Your task to perform on an android device: change notifications settings Image 0: 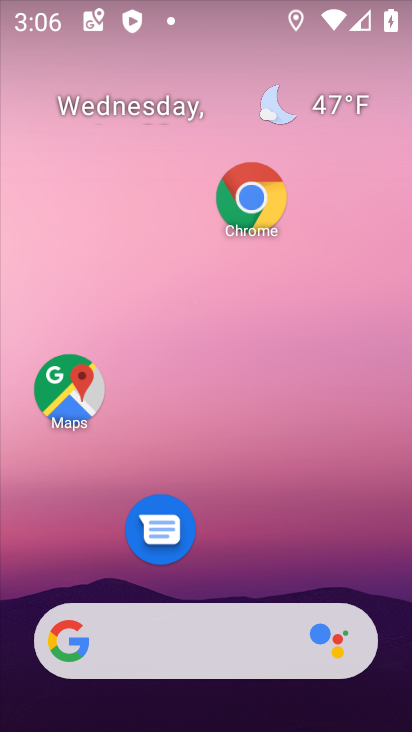
Step 0: drag from (253, 560) to (247, 16)
Your task to perform on an android device: change notifications settings Image 1: 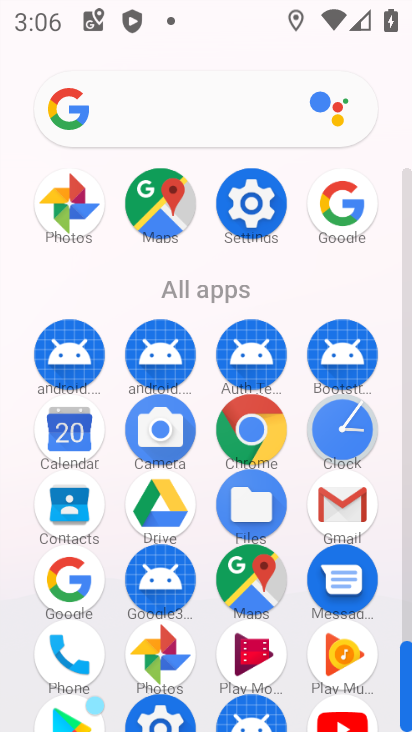
Step 1: click (246, 209)
Your task to perform on an android device: change notifications settings Image 2: 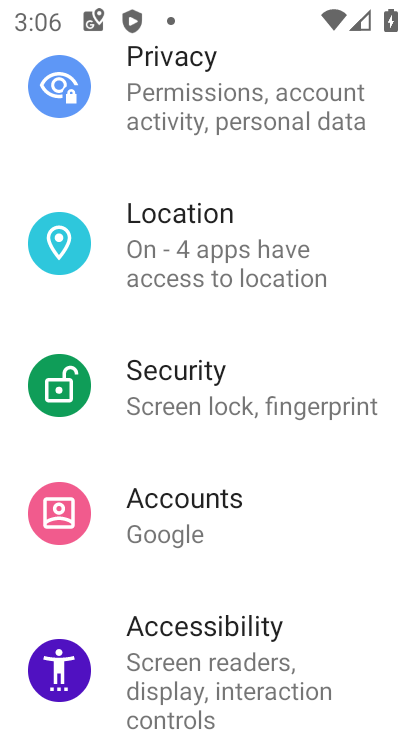
Step 2: drag from (289, 209) to (214, 728)
Your task to perform on an android device: change notifications settings Image 3: 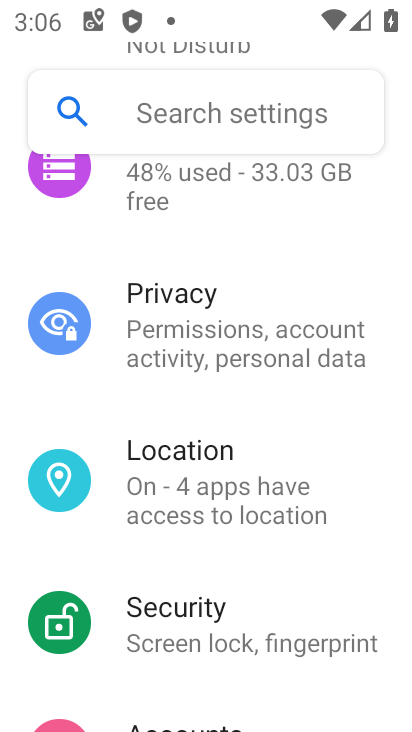
Step 3: drag from (228, 224) to (175, 717)
Your task to perform on an android device: change notifications settings Image 4: 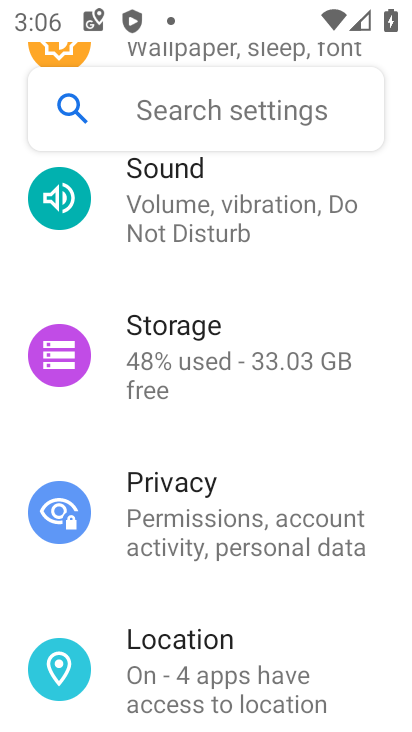
Step 4: drag from (246, 258) to (181, 725)
Your task to perform on an android device: change notifications settings Image 5: 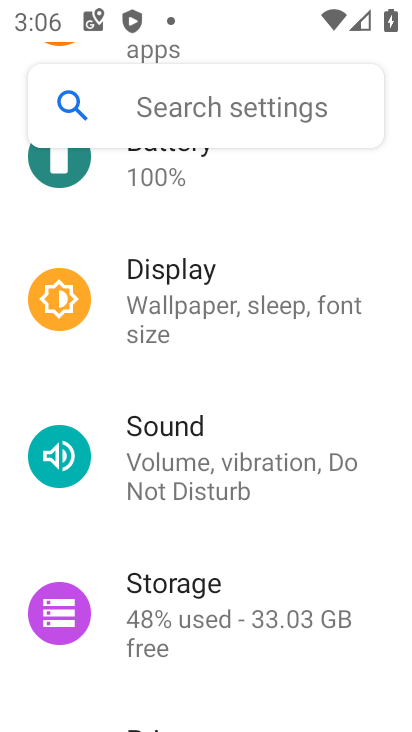
Step 5: drag from (247, 236) to (118, 703)
Your task to perform on an android device: change notifications settings Image 6: 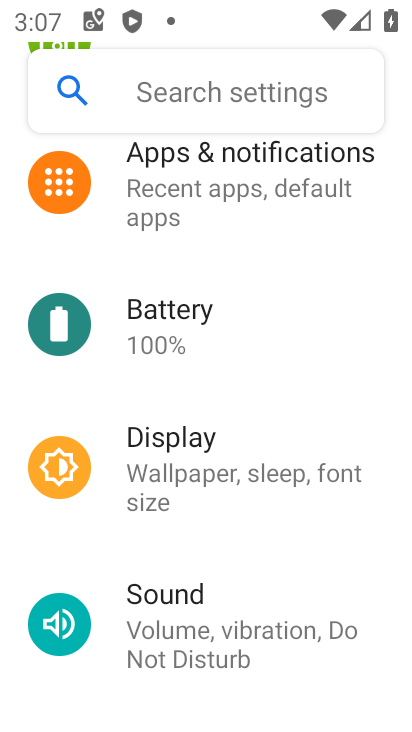
Step 6: click (201, 220)
Your task to perform on an android device: change notifications settings Image 7: 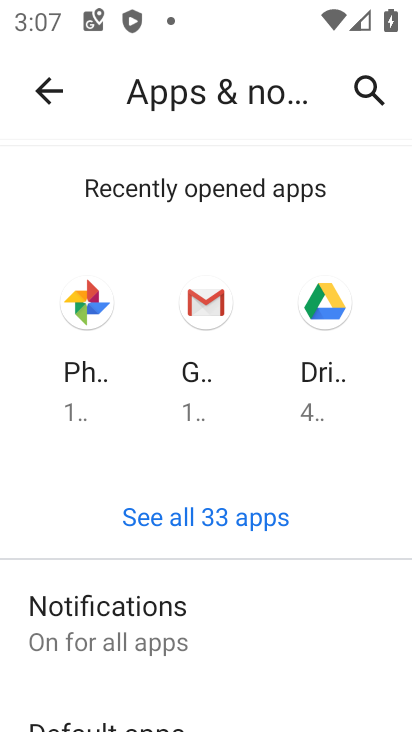
Step 7: click (143, 616)
Your task to perform on an android device: change notifications settings Image 8: 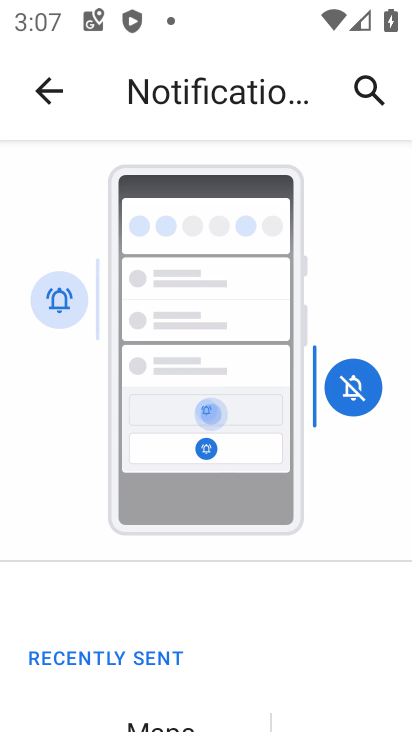
Step 8: drag from (247, 623) to (273, 236)
Your task to perform on an android device: change notifications settings Image 9: 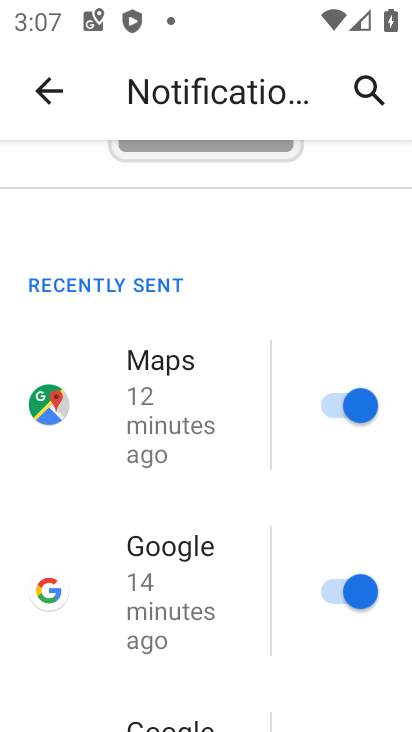
Step 9: click (353, 408)
Your task to perform on an android device: change notifications settings Image 10: 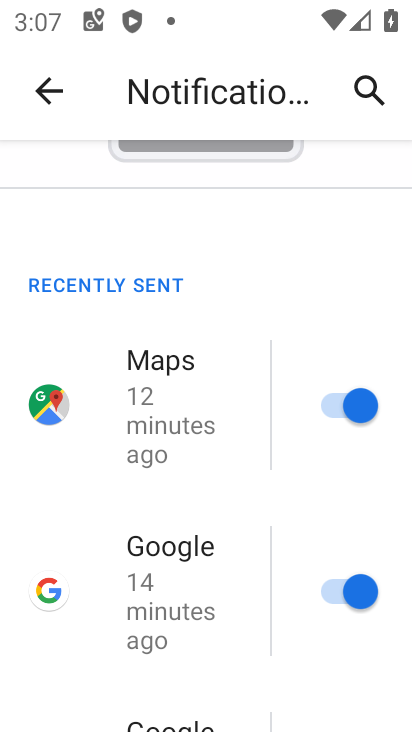
Step 10: click (360, 605)
Your task to perform on an android device: change notifications settings Image 11: 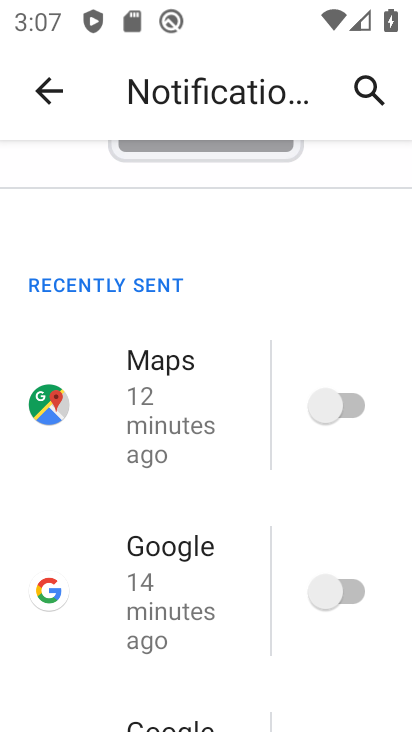
Step 11: task complete